Your task to perform on an android device: open app "AliExpress" (install if not already installed) Image 0: 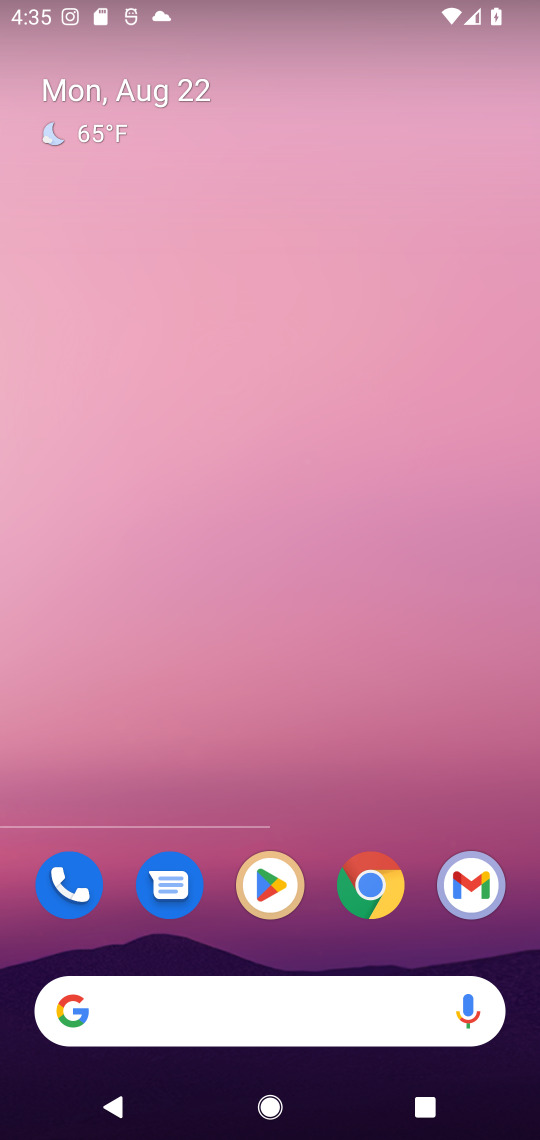
Step 0: press home button
Your task to perform on an android device: open app "AliExpress" (install if not already installed) Image 1: 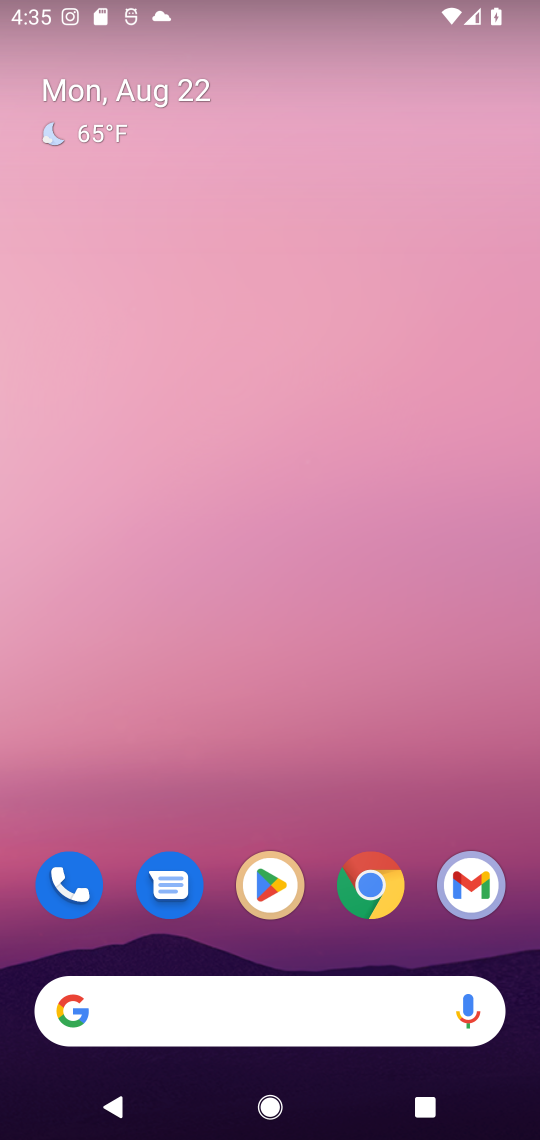
Step 1: click (266, 877)
Your task to perform on an android device: open app "AliExpress" (install if not already installed) Image 2: 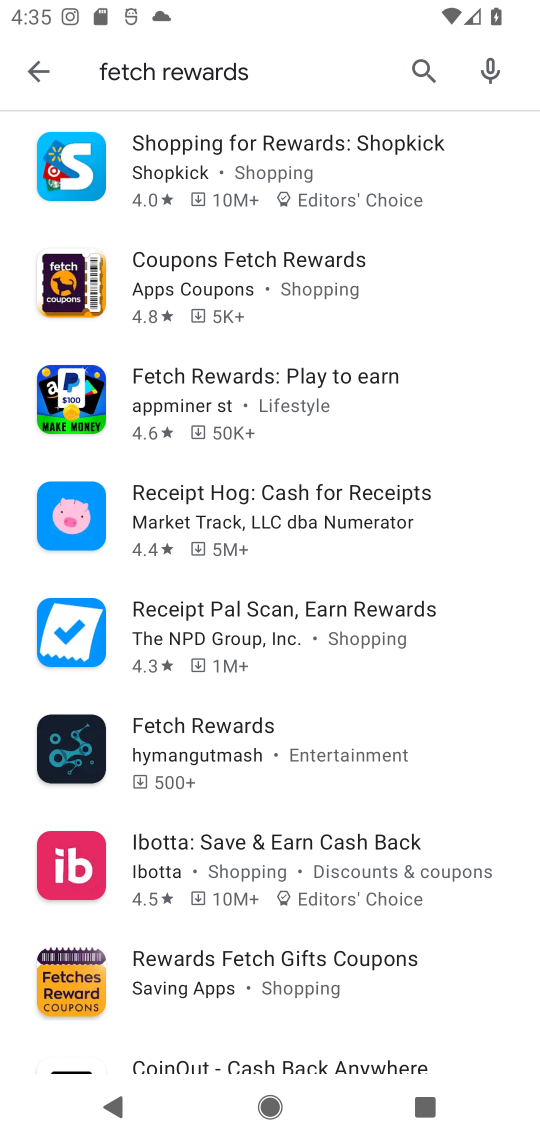
Step 2: click (427, 64)
Your task to perform on an android device: open app "AliExpress" (install if not already installed) Image 3: 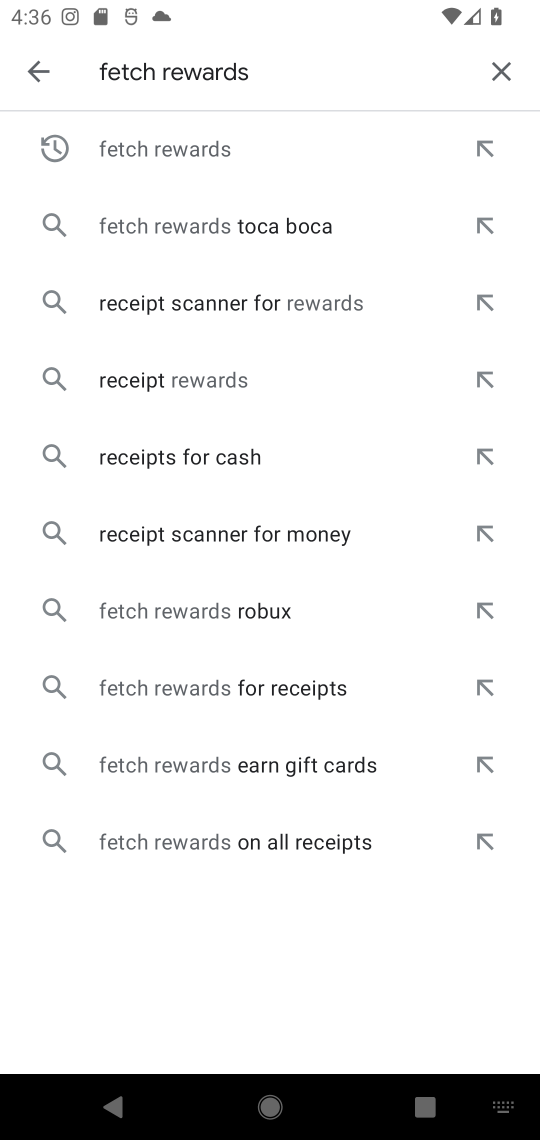
Step 3: click (494, 73)
Your task to perform on an android device: open app "AliExpress" (install if not already installed) Image 4: 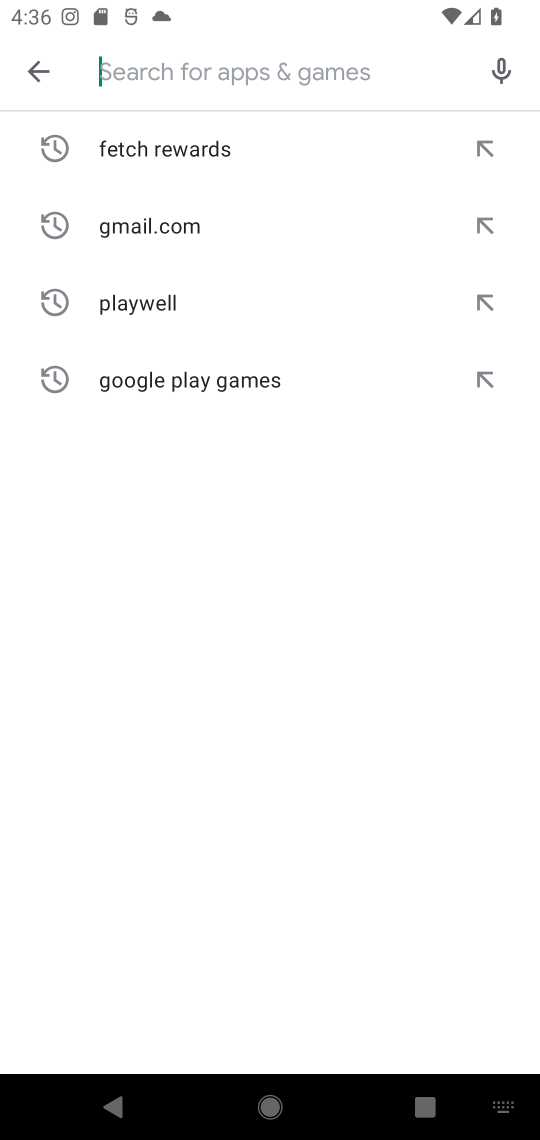
Step 4: type "AliExpress"
Your task to perform on an android device: open app "AliExpress" (install if not already installed) Image 5: 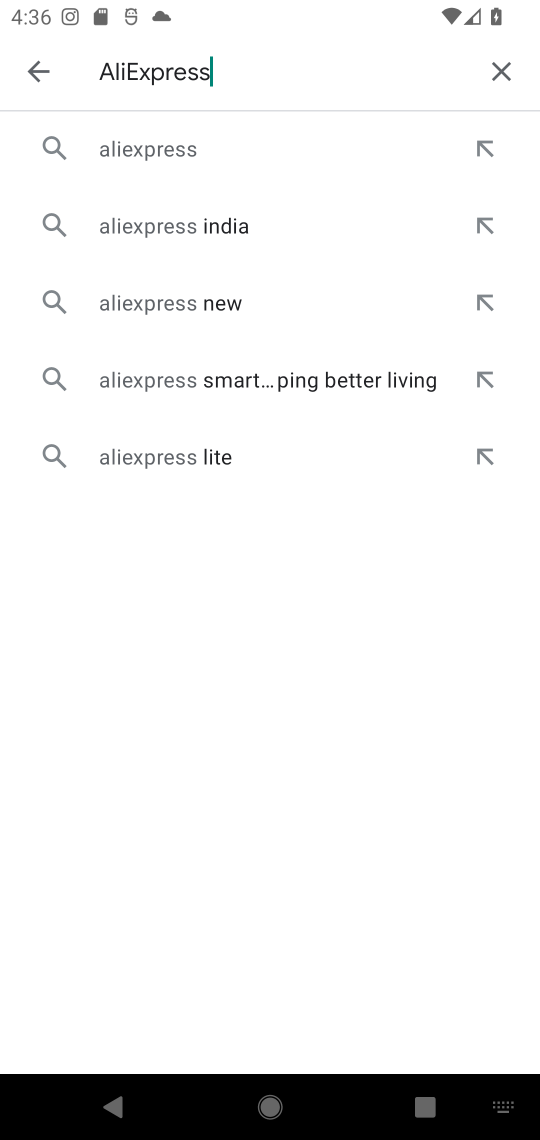
Step 5: click (170, 146)
Your task to perform on an android device: open app "AliExpress" (install if not already installed) Image 6: 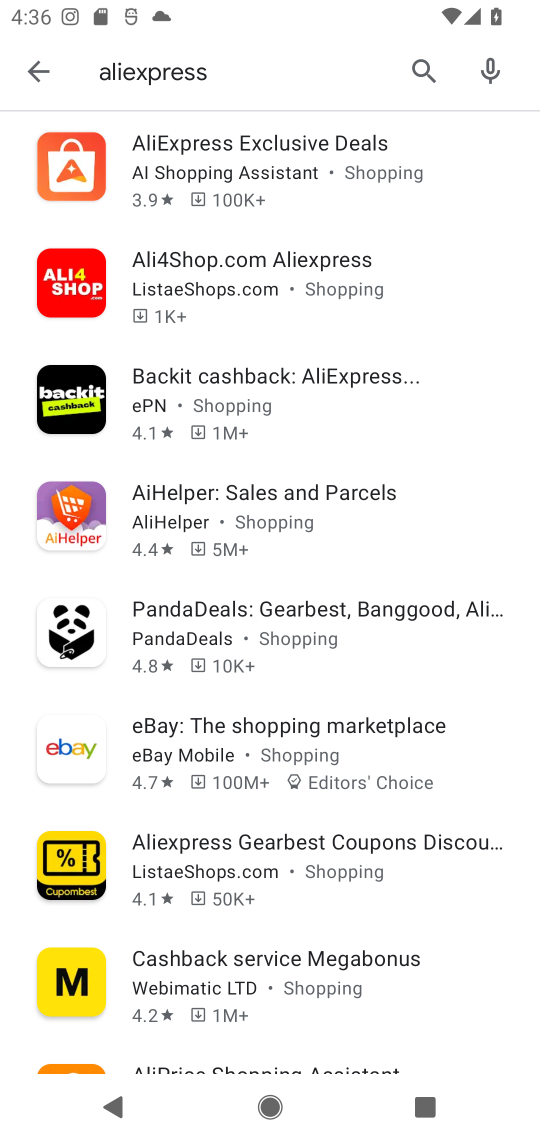
Step 6: click (190, 164)
Your task to perform on an android device: open app "AliExpress" (install if not already installed) Image 7: 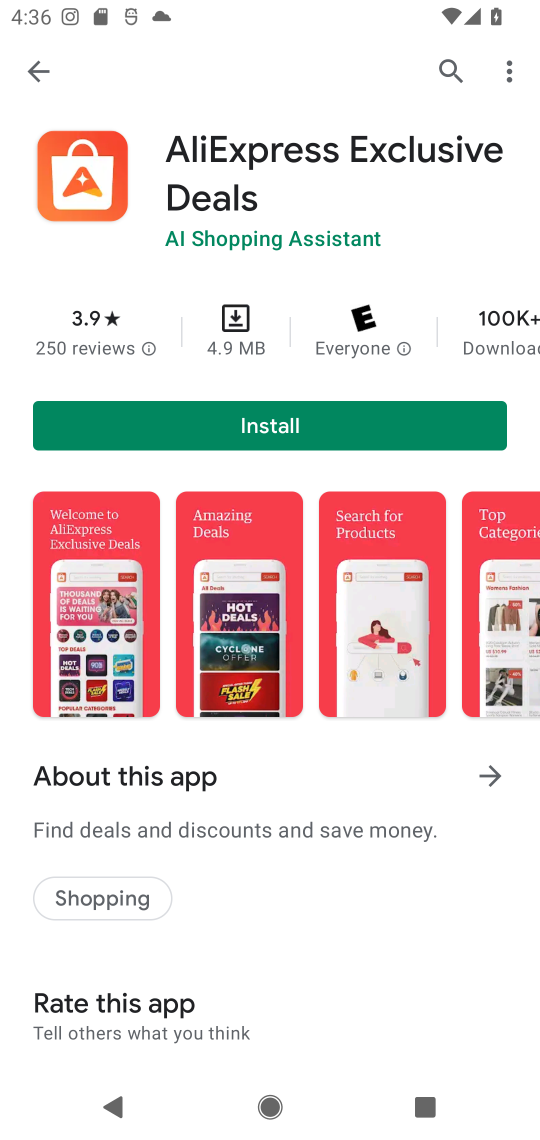
Step 7: click (270, 423)
Your task to perform on an android device: open app "AliExpress" (install if not already installed) Image 8: 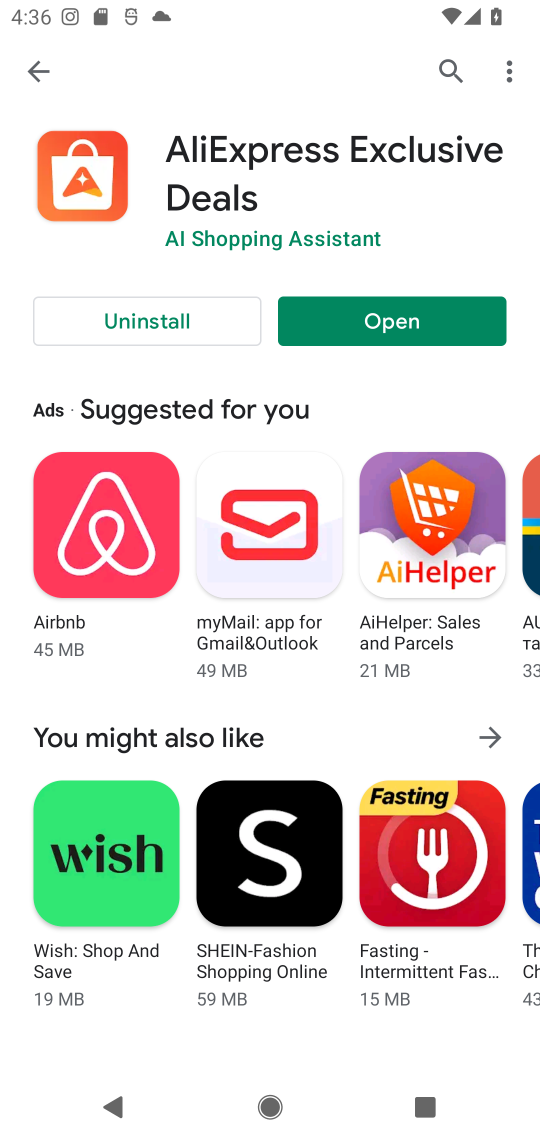
Step 8: click (348, 315)
Your task to perform on an android device: open app "AliExpress" (install if not already installed) Image 9: 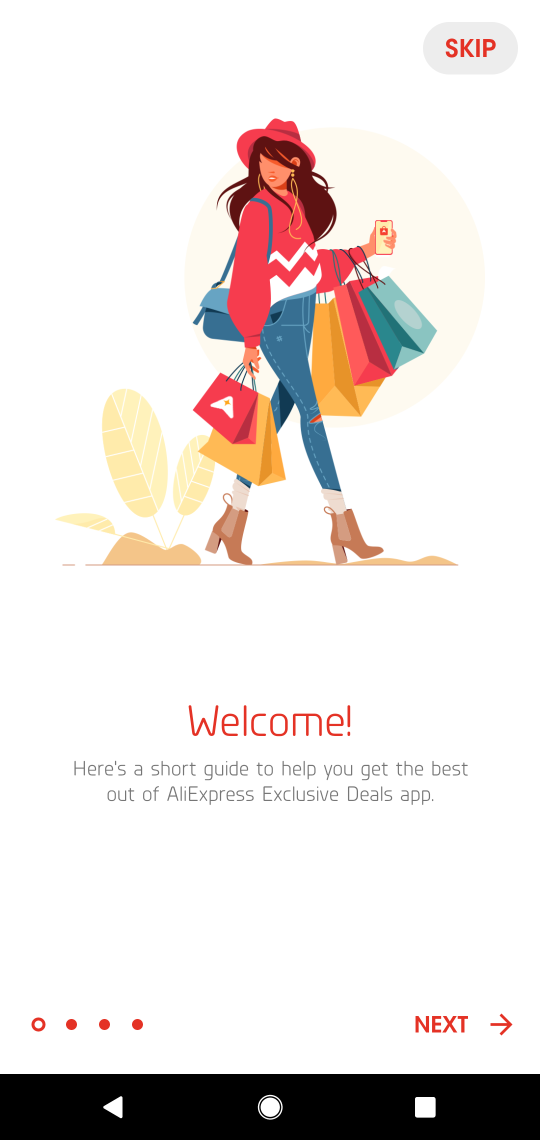
Step 9: click (348, 315)
Your task to perform on an android device: open app "AliExpress" (install if not already installed) Image 10: 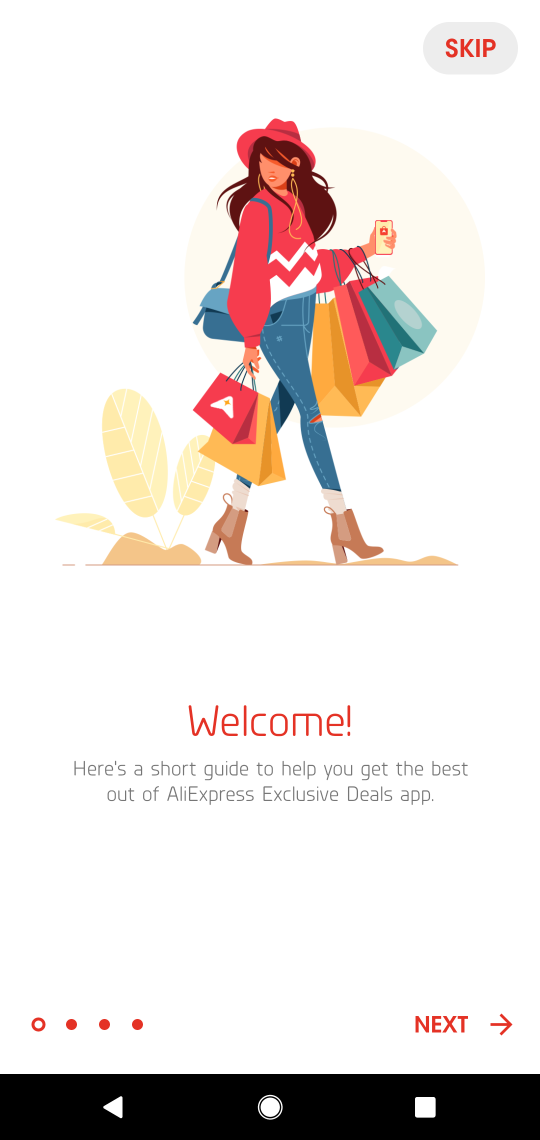
Step 10: click (462, 48)
Your task to perform on an android device: open app "AliExpress" (install if not already installed) Image 11: 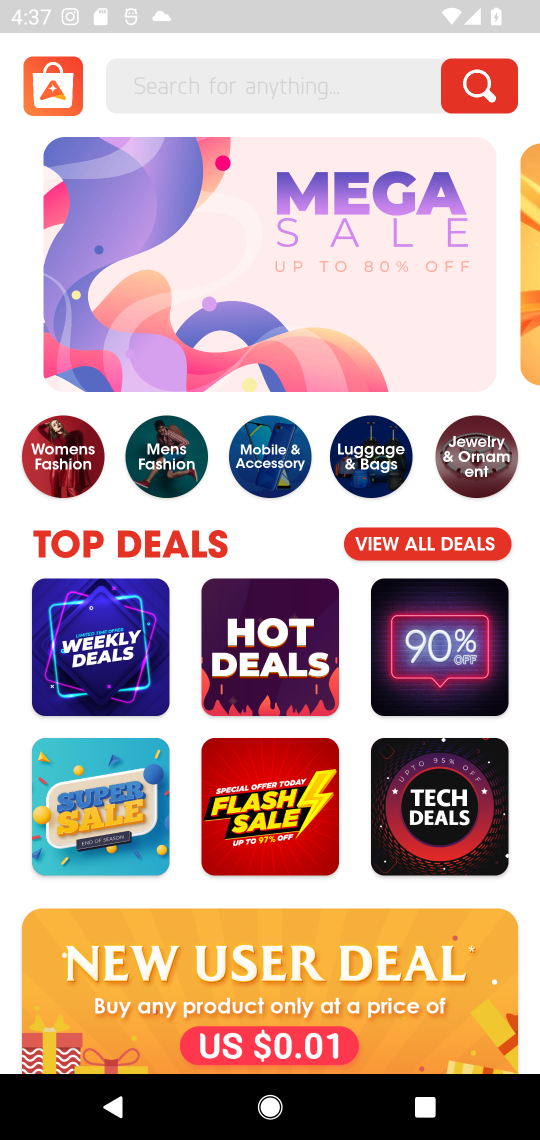
Step 11: task complete